Your task to perform on an android device: snooze an email in the gmail app Image 0: 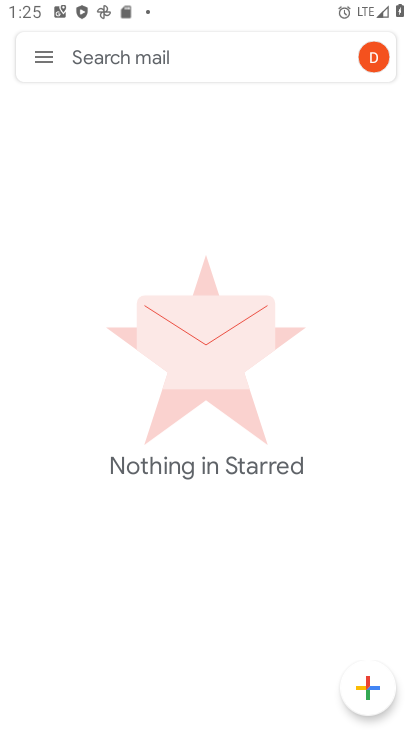
Step 0: press home button
Your task to perform on an android device: snooze an email in the gmail app Image 1: 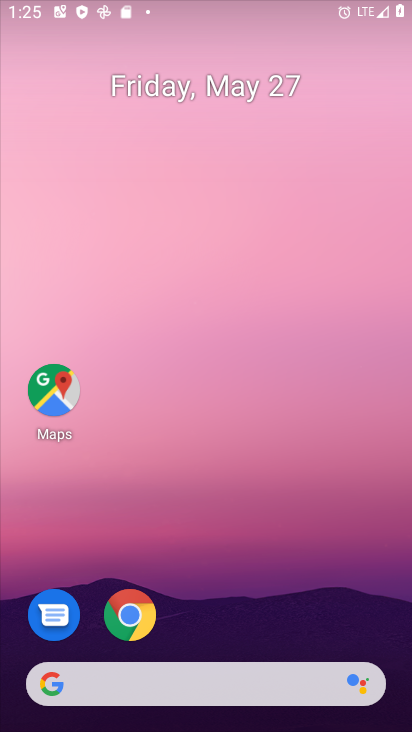
Step 1: drag from (299, 697) to (352, 0)
Your task to perform on an android device: snooze an email in the gmail app Image 2: 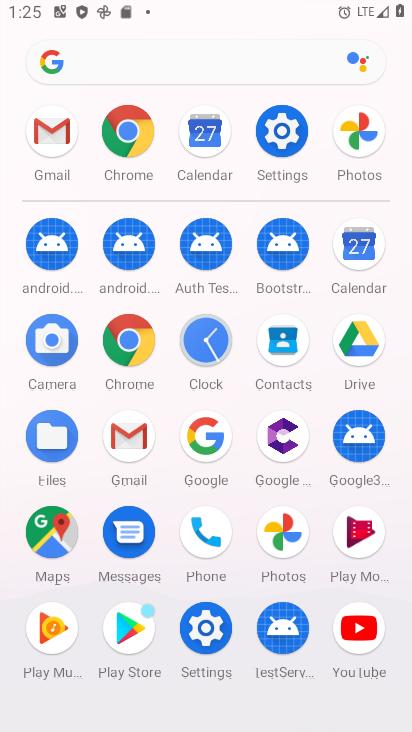
Step 2: click (133, 426)
Your task to perform on an android device: snooze an email in the gmail app Image 3: 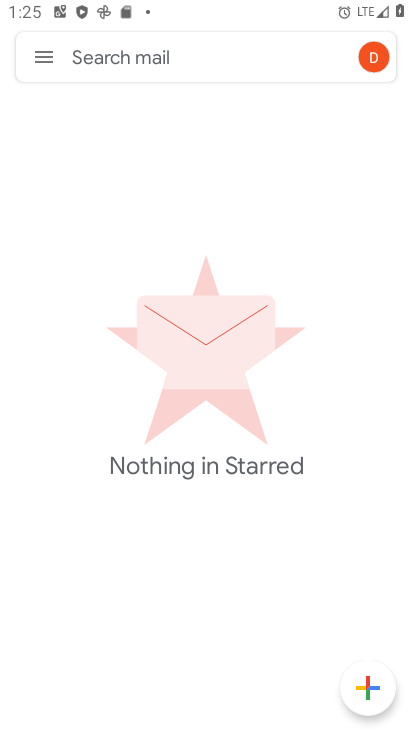
Step 3: click (51, 54)
Your task to perform on an android device: snooze an email in the gmail app Image 4: 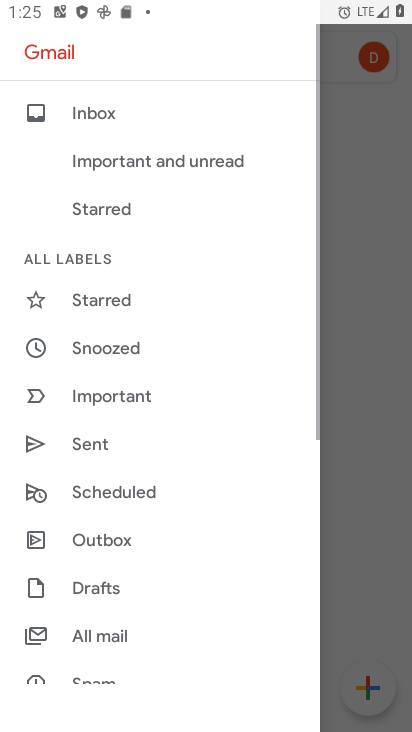
Step 4: click (133, 344)
Your task to perform on an android device: snooze an email in the gmail app Image 5: 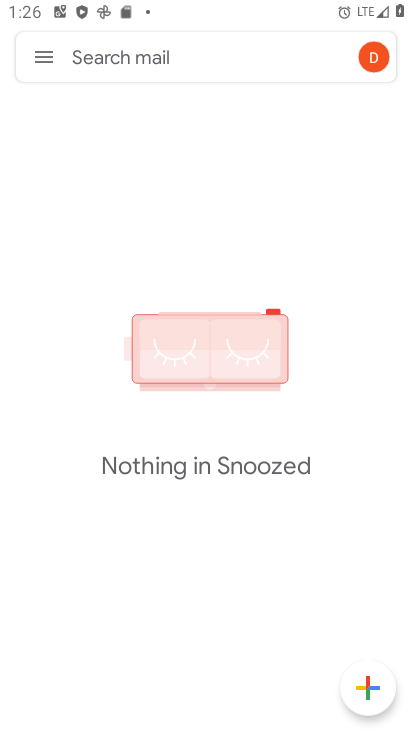
Step 5: task complete